Your task to perform on an android device: Go to ESPN.com Image 0: 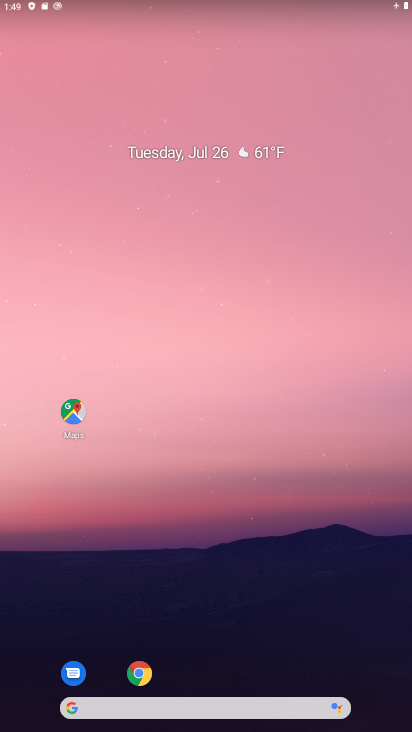
Step 0: drag from (176, 680) to (261, 166)
Your task to perform on an android device: Go to ESPN.com Image 1: 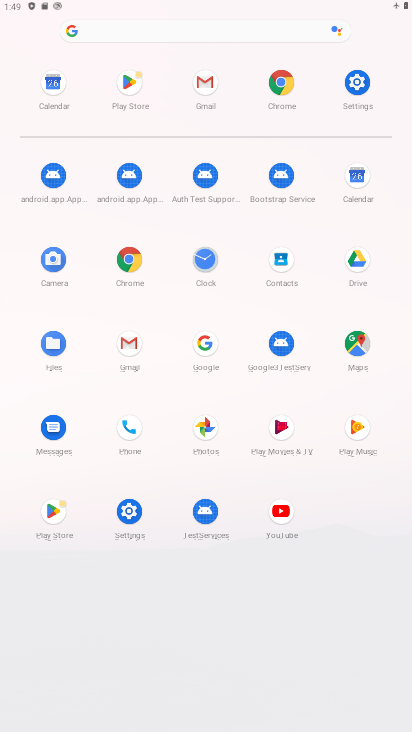
Step 1: click (282, 84)
Your task to perform on an android device: Go to ESPN.com Image 2: 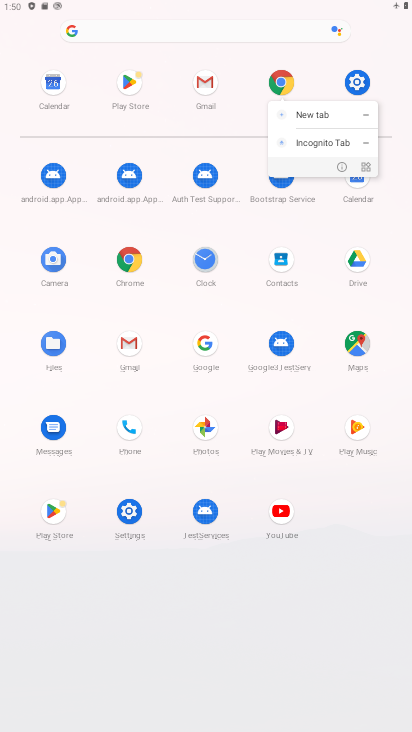
Step 2: click (339, 161)
Your task to perform on an android device: Go to ESPN.com Image 3: 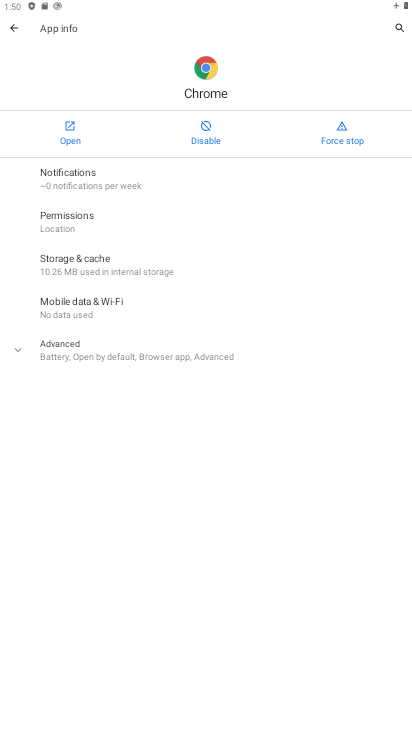
Step 3: click (62, 121)
Your task to perform on an android device: Go to ESPN.com Image 4: 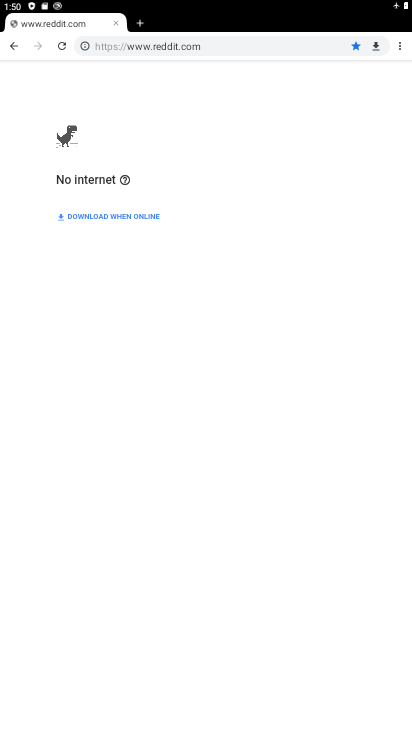
Step 4: click (138, 42)
Your task to perform on an android device: Go to ESPN.com Image 5: 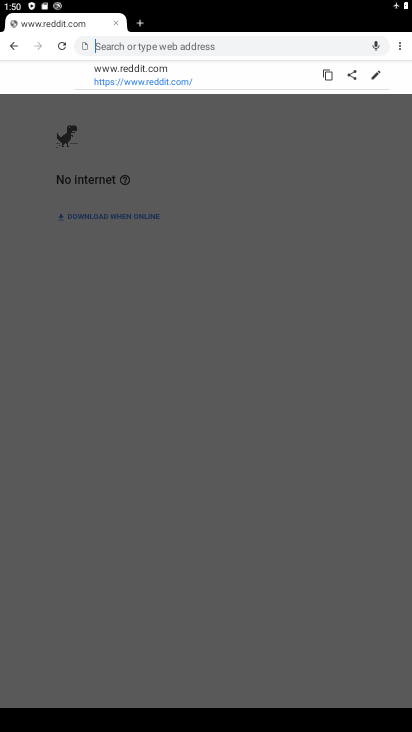
Step 5: type "espn.com"
Your task to perform on an android device: Go to ESPN.com Image 6: 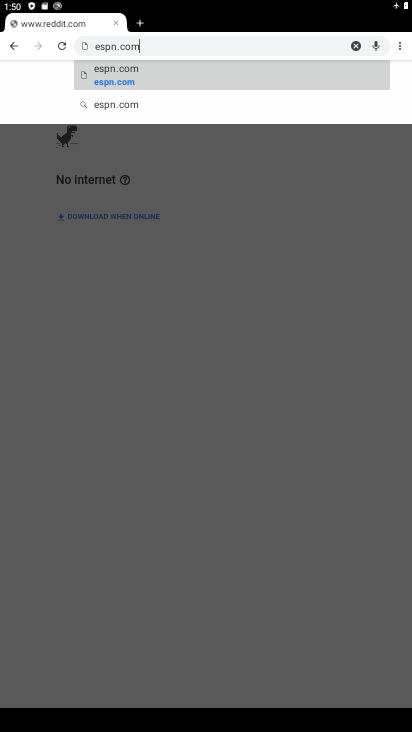
Step 6: click (116, 71)
Your task to perform on an android device: Go to ESPN.com Image 7: 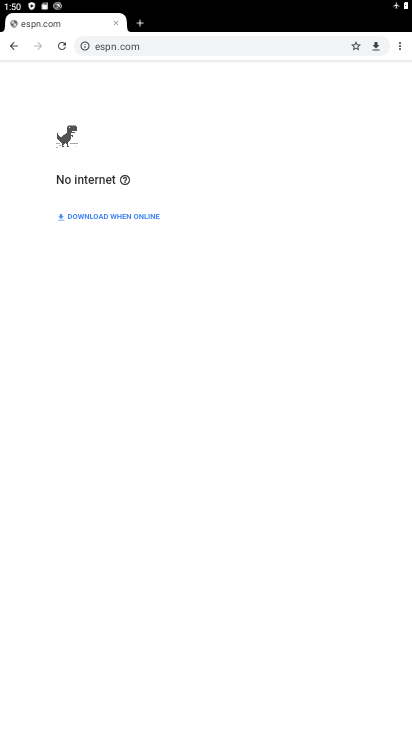
Step 7: task complete